Your task to perform on an android device: turn off sleep mode Image 0: 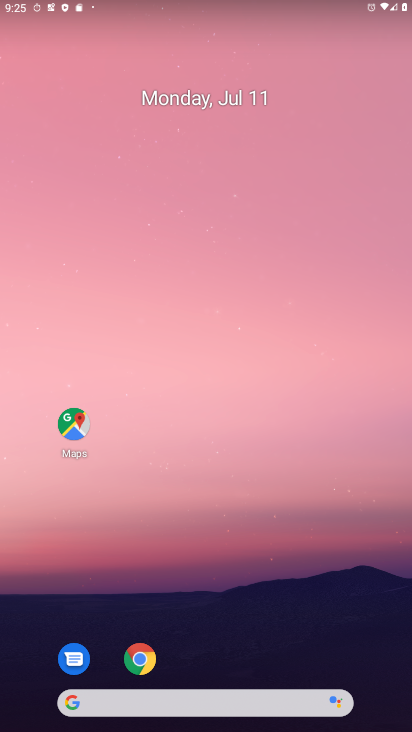
Step 0: drag from (189, 665) to (205, 34)
Your task to perform on an android device: turn off sleep mode Image 1: 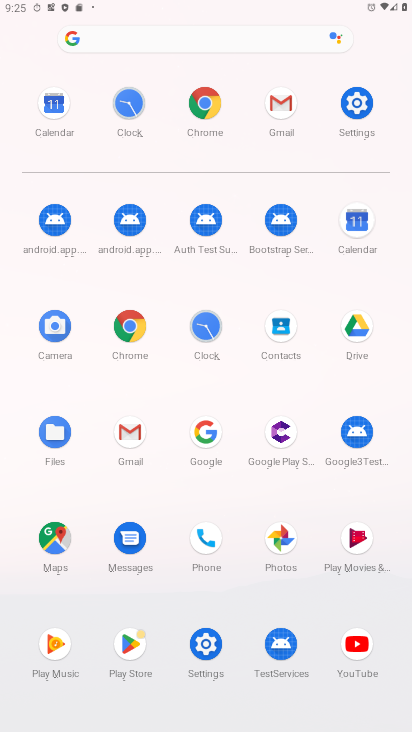
Step 1: click (355, 96)
Your task to perform on an android device: turn off sleep mode Image 2: 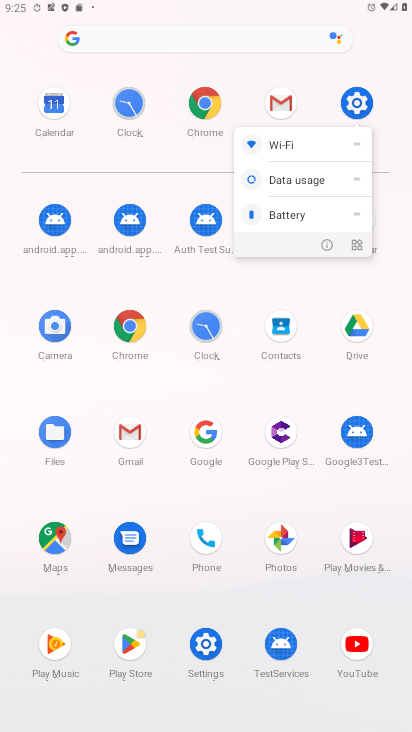
Step 2: click (312, 237)
Your task to perform on an android device: turn off sleep mode Image 3: 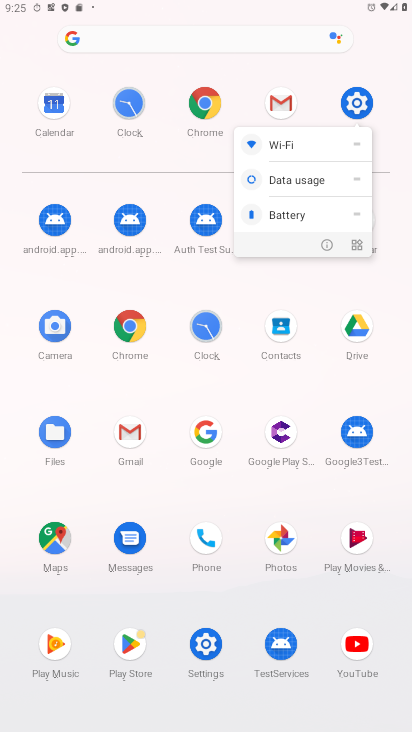
Step 3: click (326, 243)
Your task to perform on an android device: turn off sleep mode Image 4: 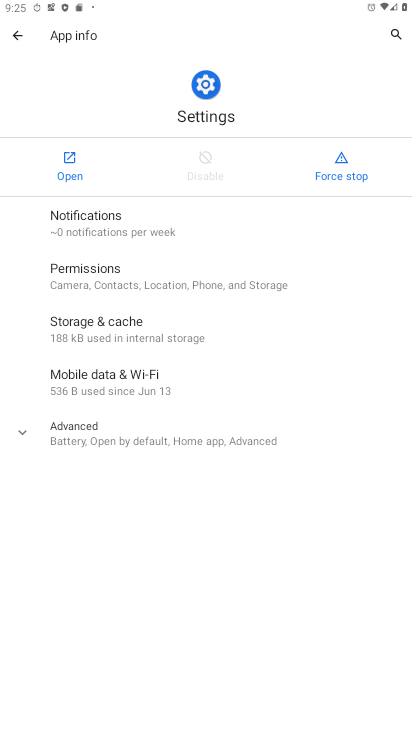
Step 4: click (70, 169)
Your task to perform on an android device: turn off sleep mode Image 5: 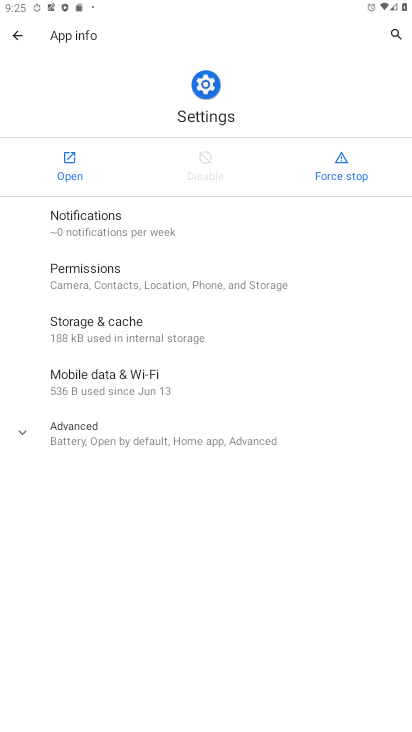
Step 5: click (70, 169)
Your task to perform on an android device: turn off sleep mode Image 6: 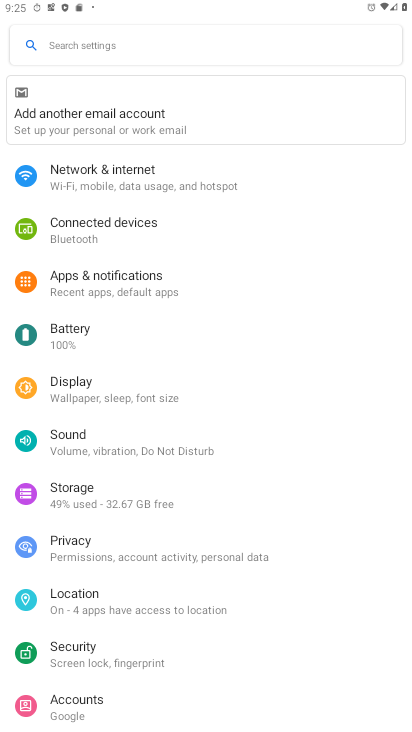
Step 6: click (130, 405)
Your task to perform on an android device: turn off sleep mode Image 7: 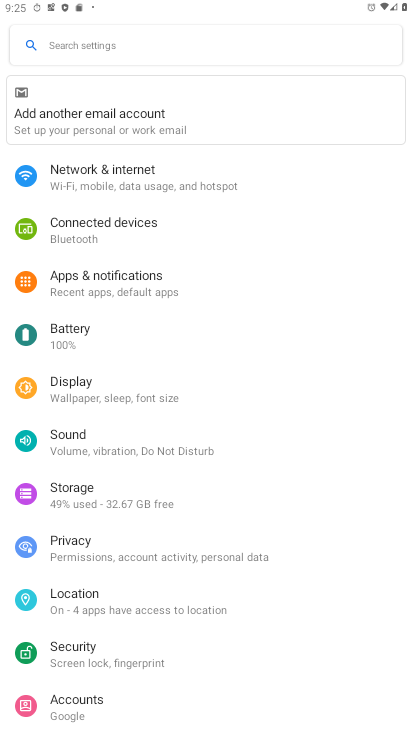
Step 7: click (130, 405)
Your task to perform on an android device: turn off sleep mode Image 8: 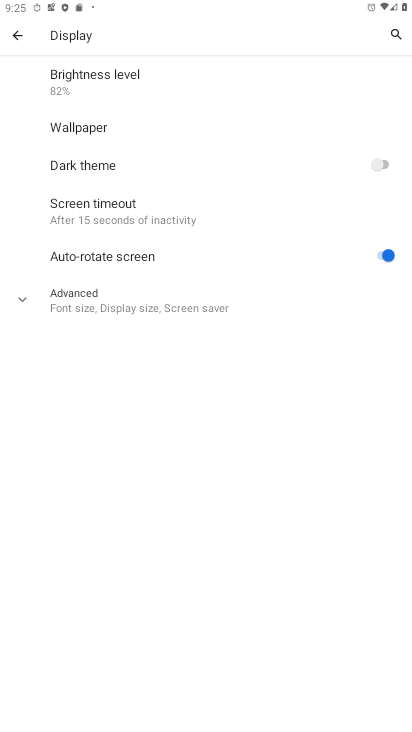
Step 8: click (194, 213)
Your task to perform on an android device: turn off sleep mode Image 9: 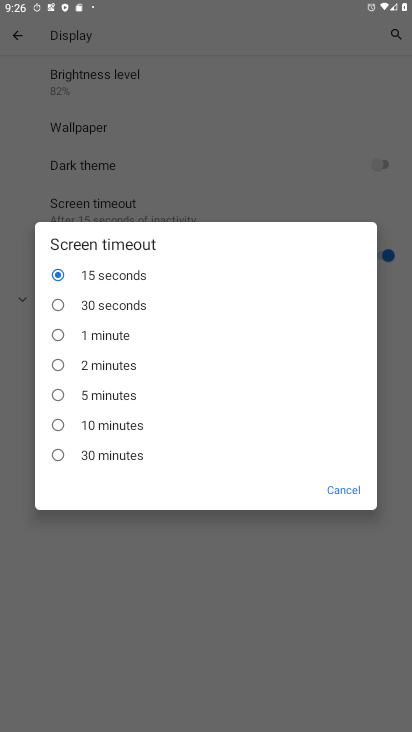
Step 9: task complete